Your task to perform on an android device: turn pop-ups on in chrome Image 0: 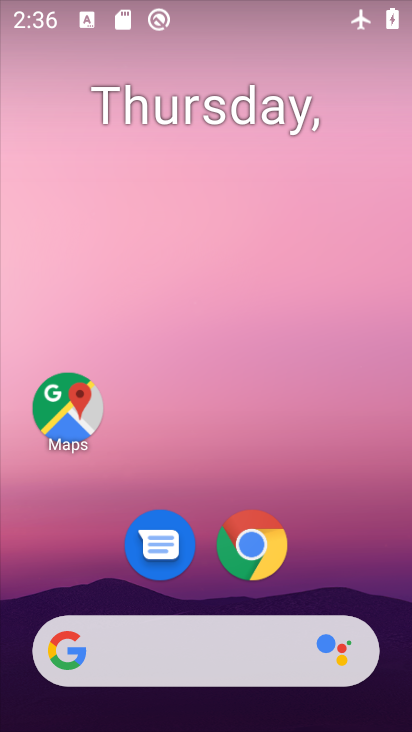
Step 0: click (261, 531)
Your task to perform on an android device: turn pop-ups on in chrome Image 1: 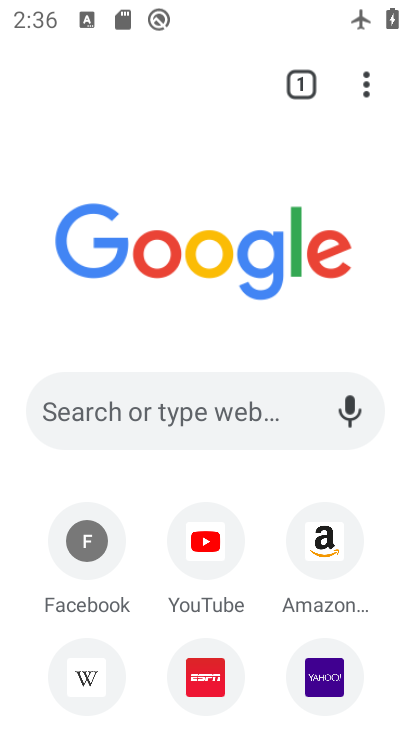
Step 1: click (364, 70)
Your task to perform on an android device: turn pop-ups on in chrome Image 2: 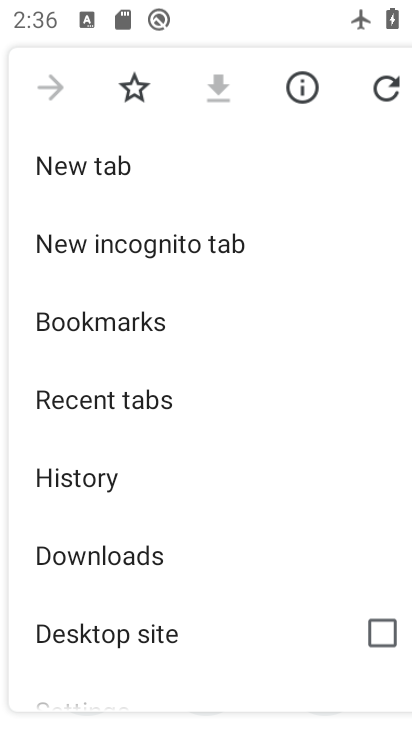
Step 2: click (105, 708)
Your task to perform on an android device: turn pop-ups on in chrome Image 3: 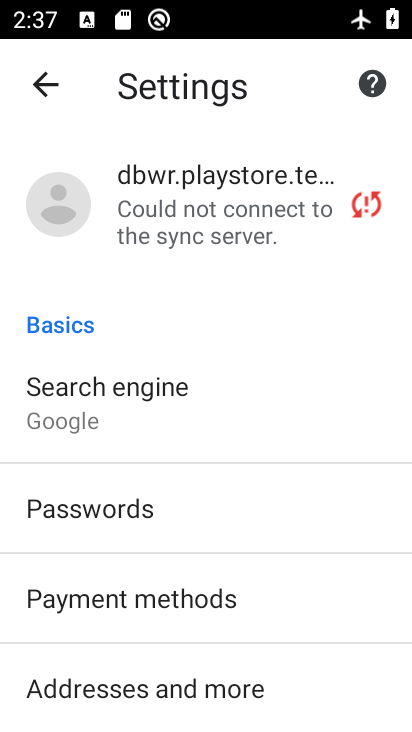
Step 3: drag from (248, 623) to (263, 89)
Your task to perform on an android device: turn pop-ups on in chrome Image 4: 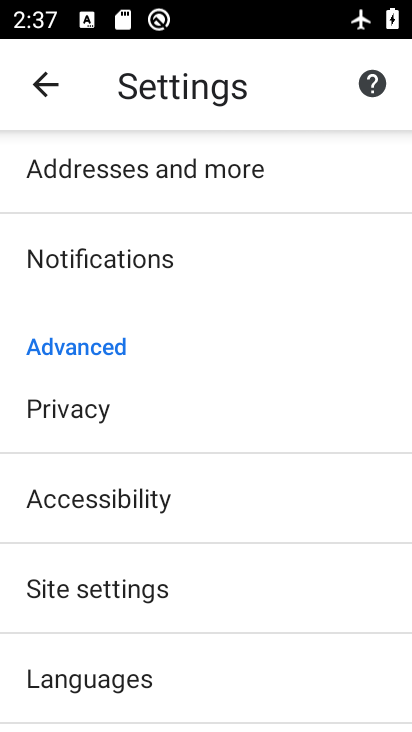
Step 4: click (145, 603)
Your task to perform on an android device: turn pop-ups on in chrome Image 5: 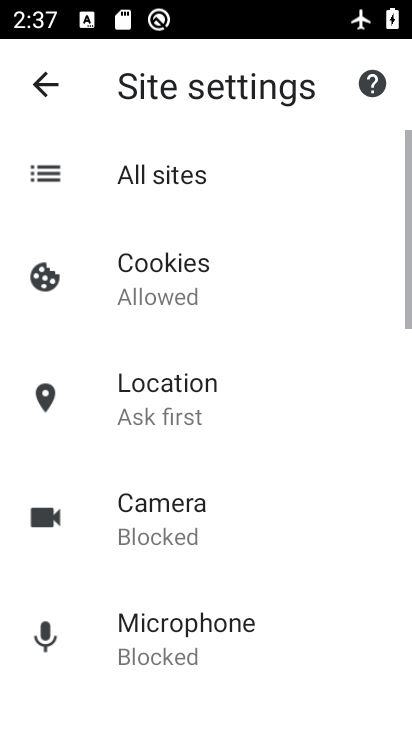
Step 5: drag from (201, 598) to (282, 14)
Your task to perform on an android device: turn pop-ups on in chrome Image 6: 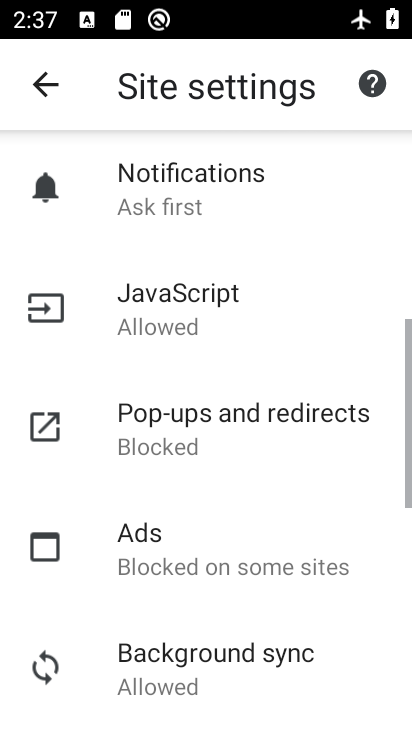
Step 6: click (225, 420)
Your task to perform on an android device: turn pop-ups on in chrome Image 7: 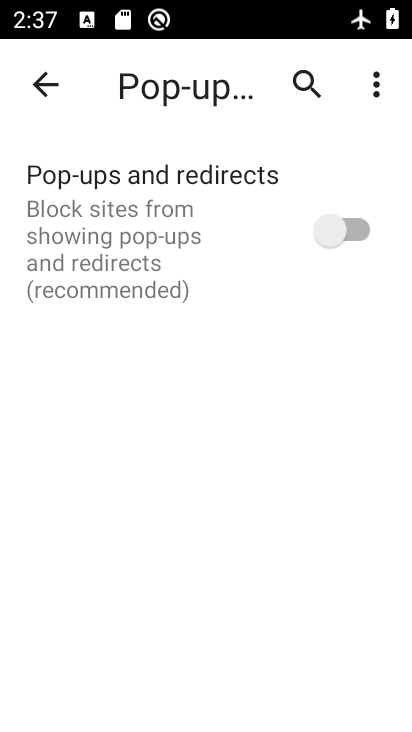
Step 7: click (343, 228)
Your task to perform on an android device: turn pop-ups on in chrome Image 8: 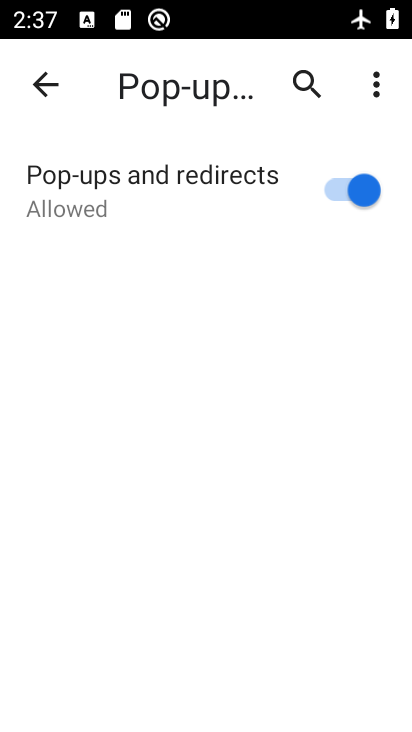
Step 8: task complete